Your task to perform on an android device: Open notification settings Image 0: 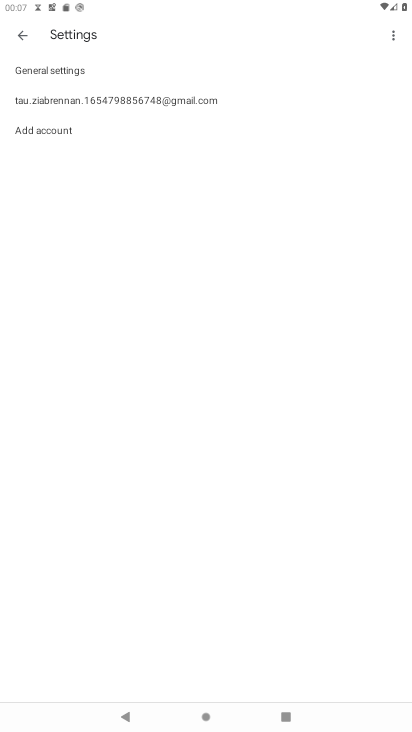
Step 0: click (63, 68)
Your task to perform on an android device: Open notification settings Image 1: 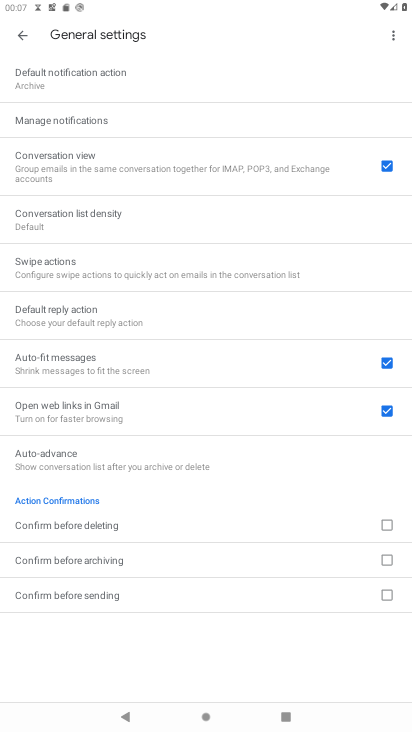
Step 1: click (25, 32)
Your task to perform on an android device: Open notification settings Image 2: 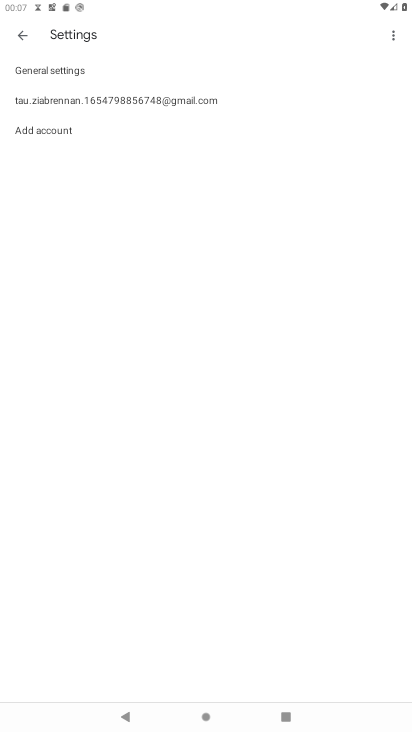
Step 2: click (100, 97)
Your task to perform on an android device: Open notification settings Image 3: 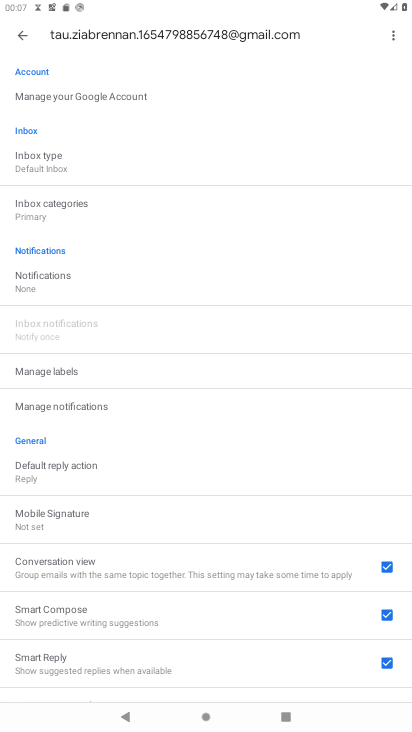
Step 3: click (64, 285)
Your task to perform on an android device: Open notification settings Image 4: 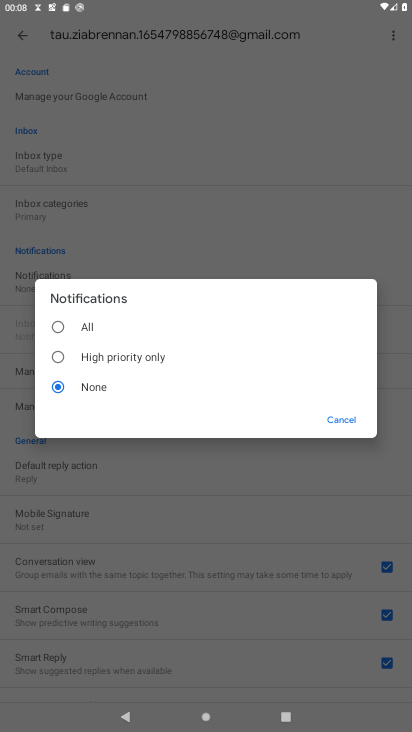
Step 4: click (168, 221)
Your task to perform on an android device: Open notification settings Image 5: 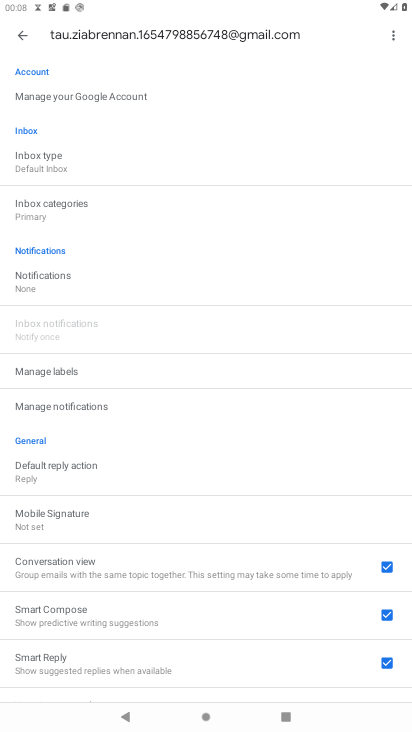
Step 5: click (58, 273)
Your task to perform on an android device: Open notification settings Image 6: 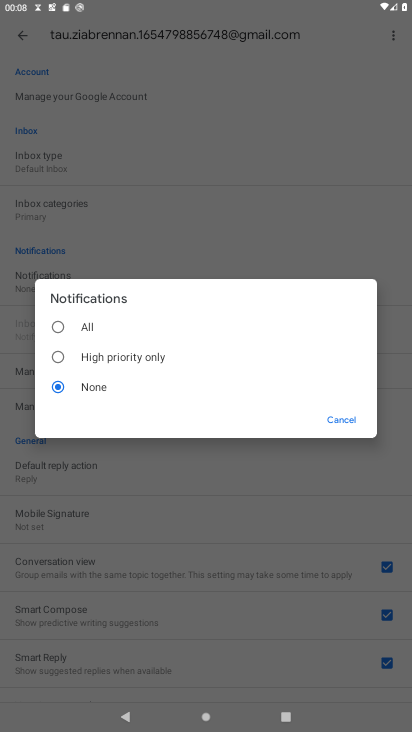
Step 6: drag from (90, 333) to (195, 182)
Your task to perform on an android device: Open notification settings Image 7: 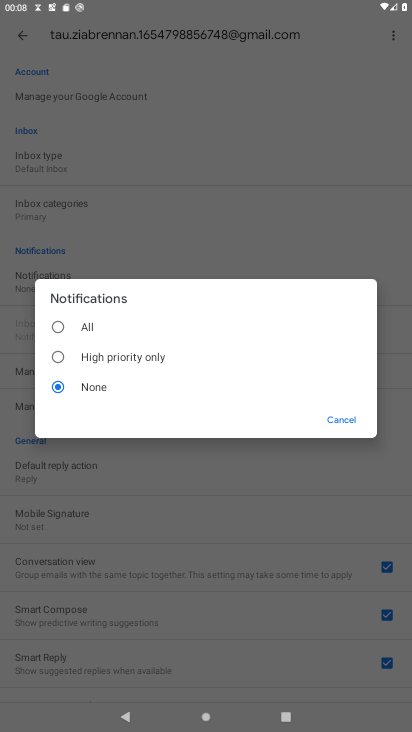
Step 7: click (195, 182)
Your task to perform on an android device: Open notification settings Image 8: 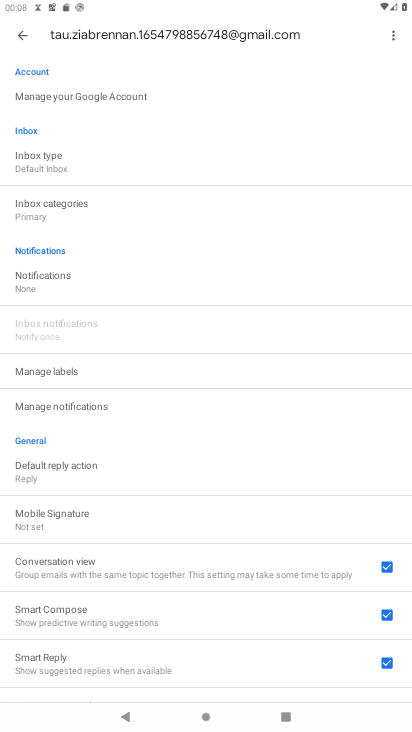
Step 8: click (213, 212)
Your task to perform on an android device: Open notification settings Image 9: 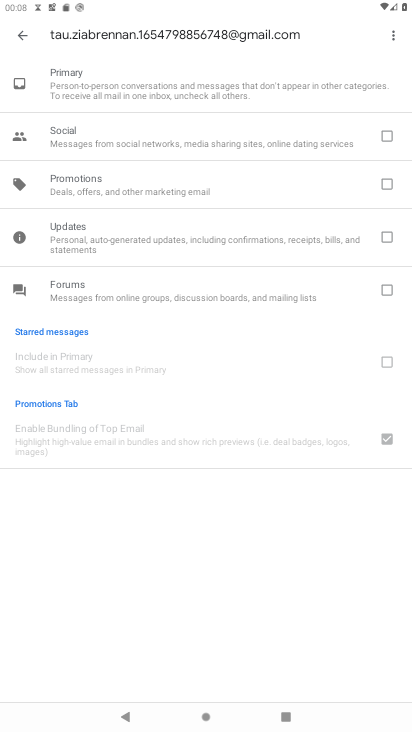
Step 9: task complete